Your task to perform on an android device: Is it going to rain today? Image 0: 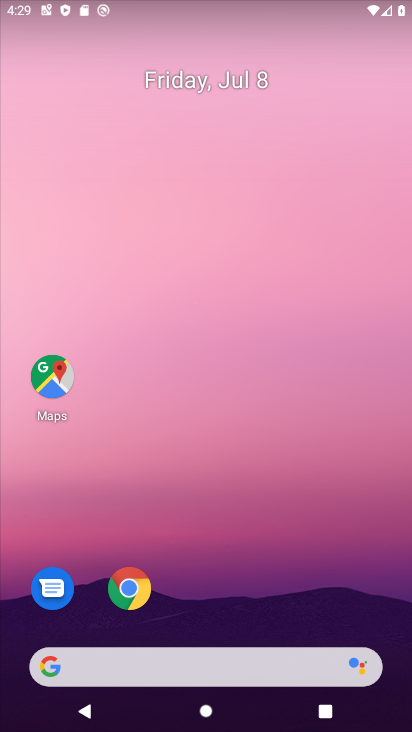
Step 0: click (198, 666)
Your task to perform on an android device: Is it going to rain today? Image 1: 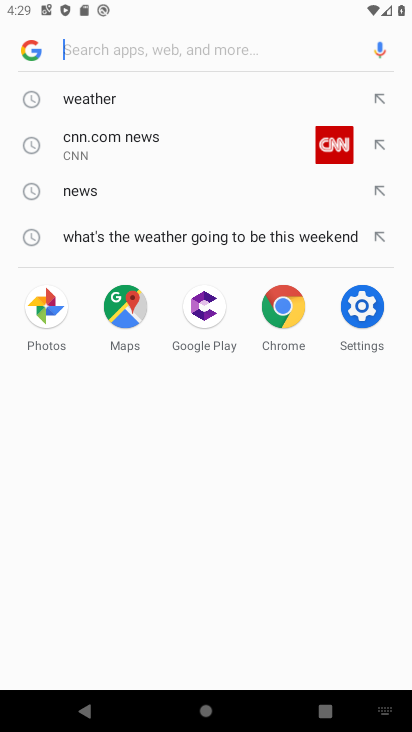
Step 1: click (111, 96)
Your task to perform on an android device: Is it going to rain today? Image 2: 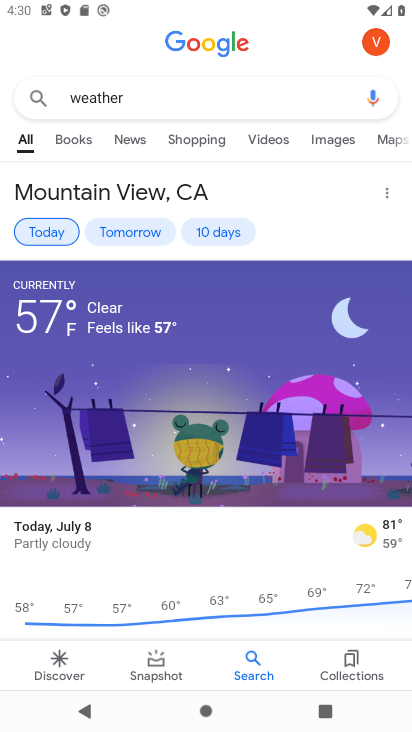
Step 2: task complete